Your task to perform on an android device: check the backup settings in the google photos Image 0: 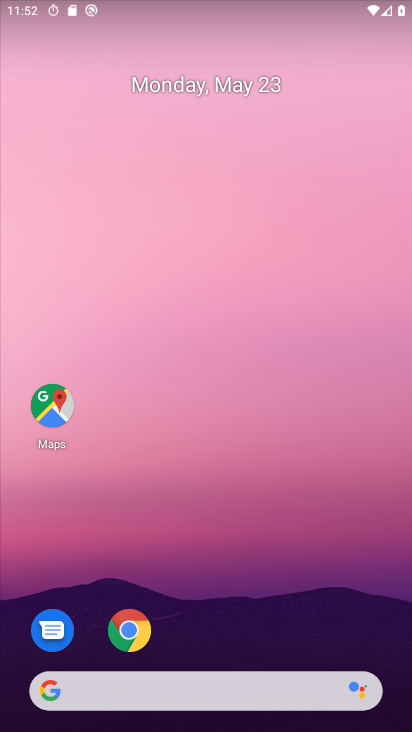
Step 0: drag from (224, 619) to (230, 53)
Your task to perform on an android device: check the backup settings in the google photos Image 1: 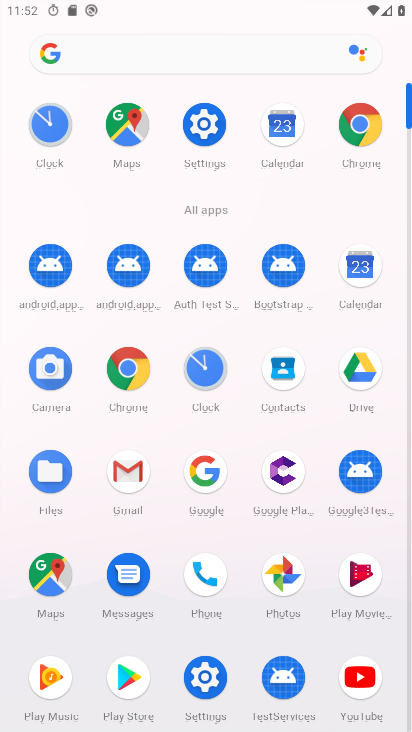
Step 1: click (284, 583)
Your task to perform on an android device: check the backup settings in the google photos Image 2: 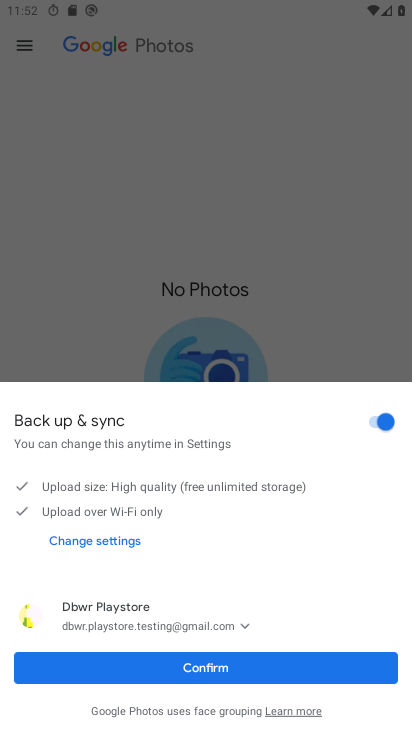
Step 2: click (218, 669)
Your task to perform on an android device: check the backup settings in the google photos Image 3: 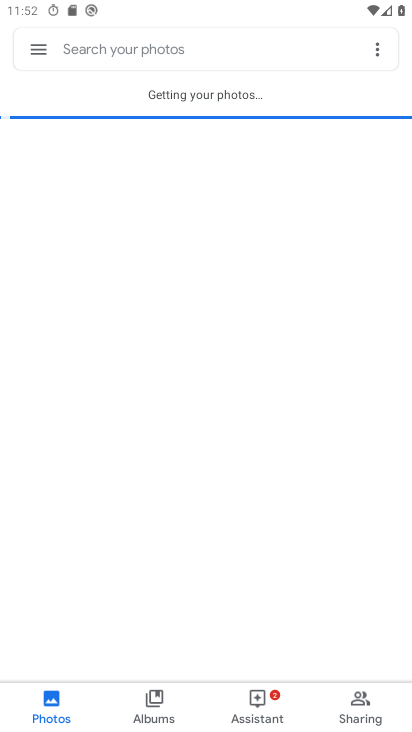
Step 3: click (38, 54)
Your task to perform on an android device: check the backup settings in the google photos Image 4: 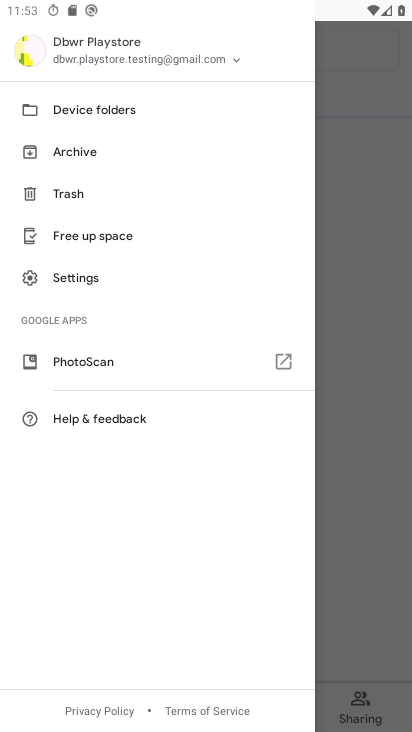
Step 4: click (88, 280)
Your task to perform on an android device: check the backup settings in the google photos Image 5: 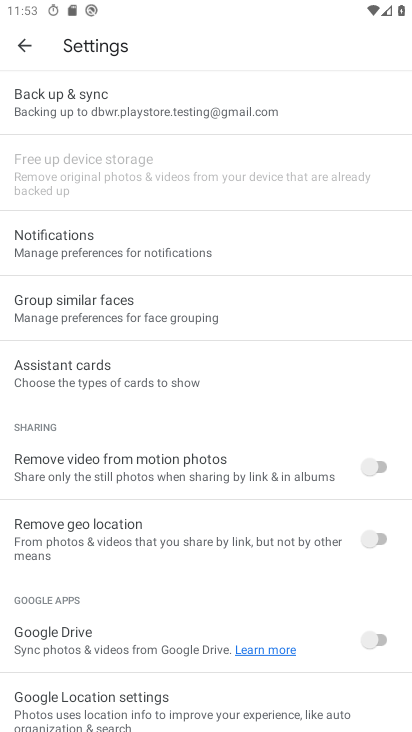
Step 5: click (149, 103)
Your task to perform on an android device: check the backup settings in the google photos Image 6: 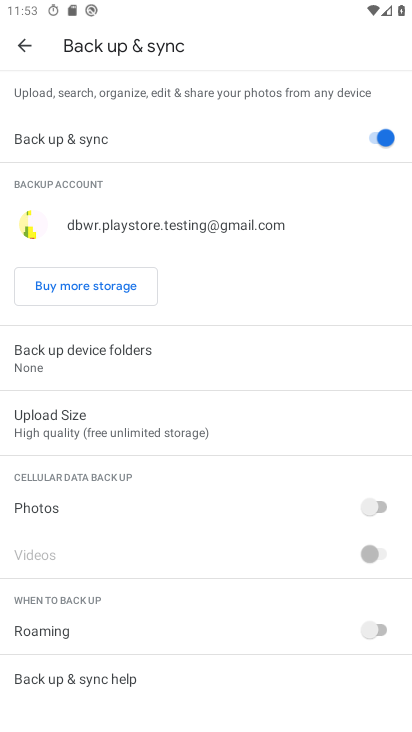
Step 6: task complete